Your task to perform on an android device: What is the recent news? Image 0: 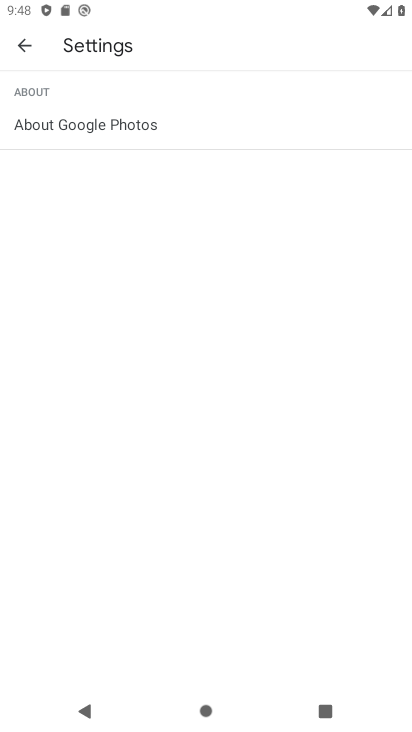
Step 0: press home button
Your task to perform on an android device: What is the recent news? Image 1: 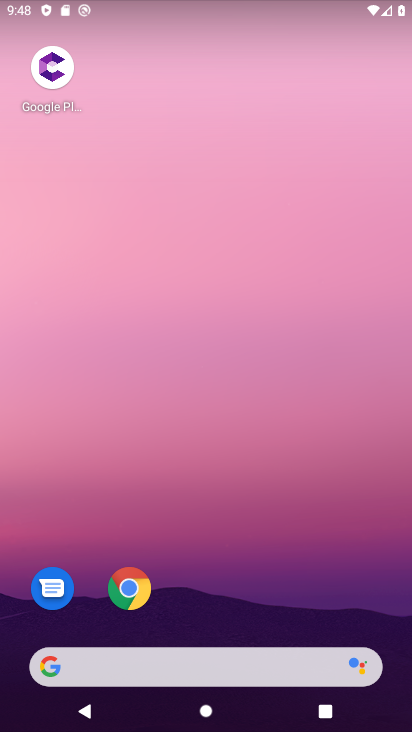
Step 1: drag from (220, 623) to (191, 153)
Your task to perform on an android device: What is the recent news? Image 2: 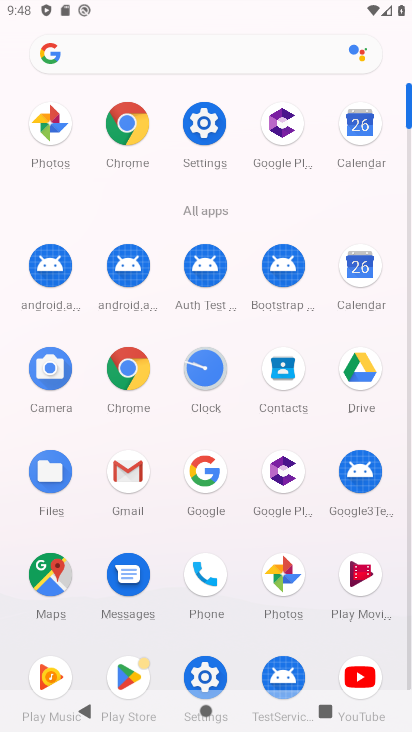
Step 2: click (134, 392)
Your task to perform on an android device: What is the recent news? Image 3: 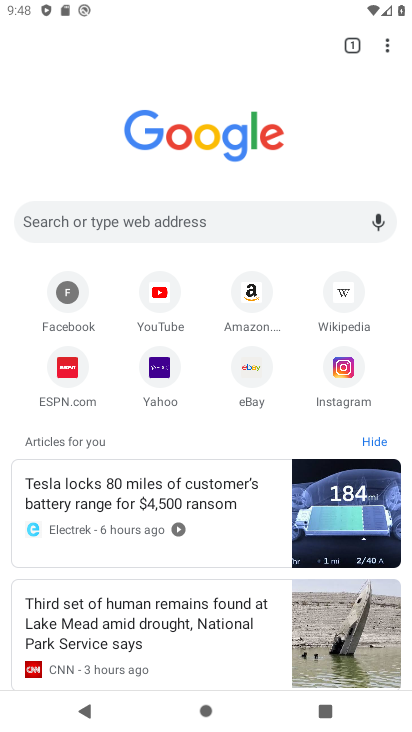
Step 3: click (242, 223)
Your task to perform on an android device: What is the recent news? Image 4: 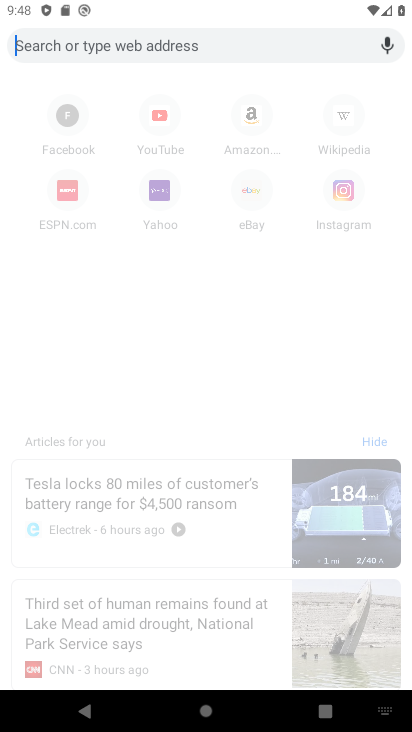
Step 4: type "What is the recent news?"
Your task to perform on an android device: What is the recent news? Image 5: 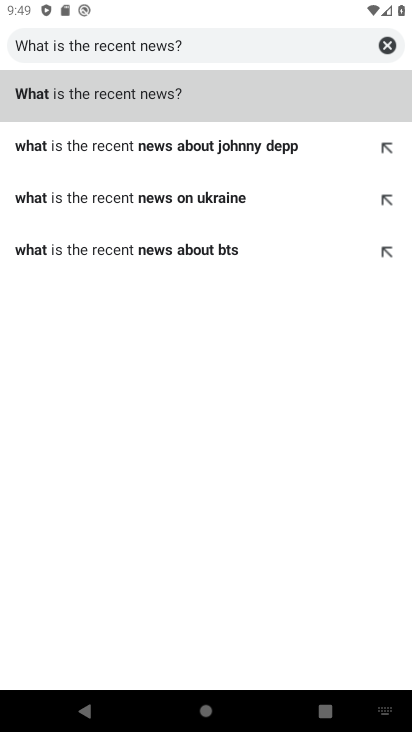
Step 5: click (317, 86)
Your task to perform on an android device: What is the recent news? Image 6: 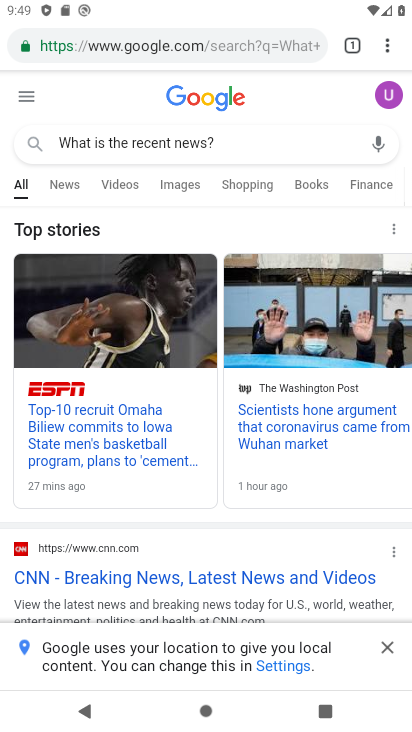
Step 6: task complete